Your task to perform on an android device: check google app version Image 0: 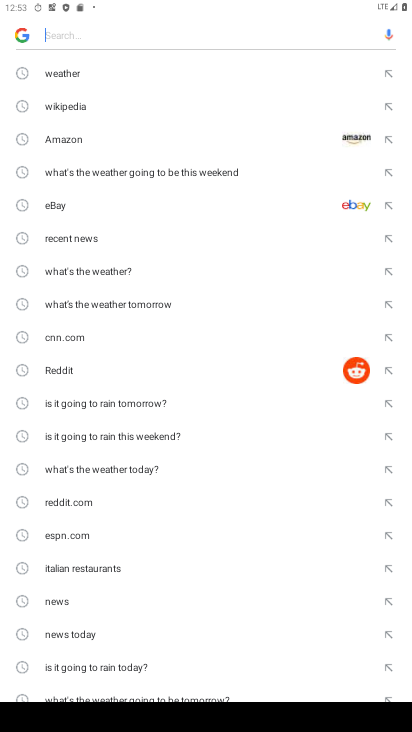
Step 0: press home button
Your task to perform on an android device: check google app version Image 1: 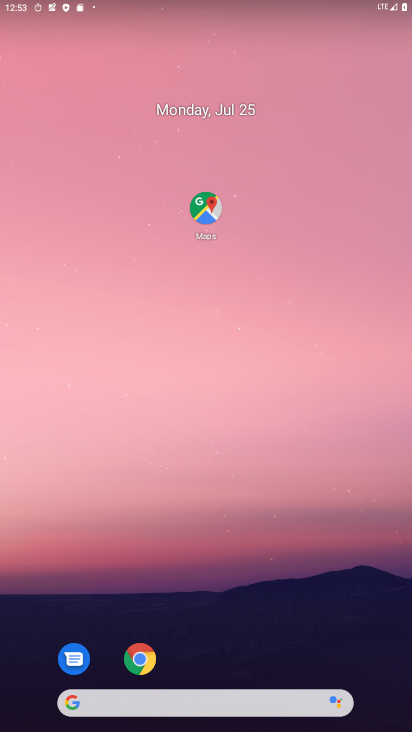
Step 1: drag from (52, 650) to (328, 9)
Your task to perform on an android device: check google app version Image 2: 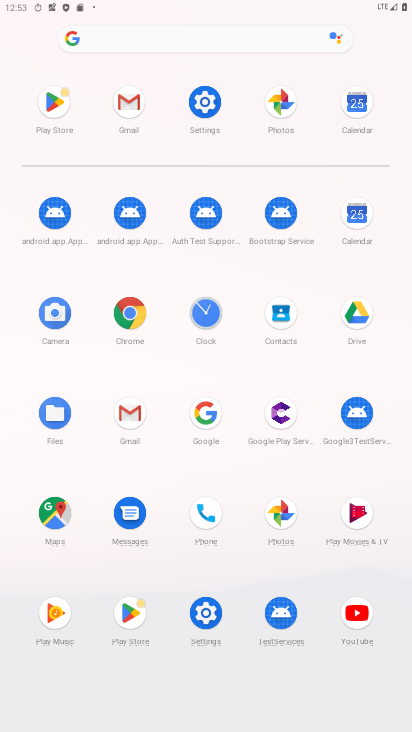
Step 2: click (204, 617)
Your task to perform on an android device: check google app version Image 3: 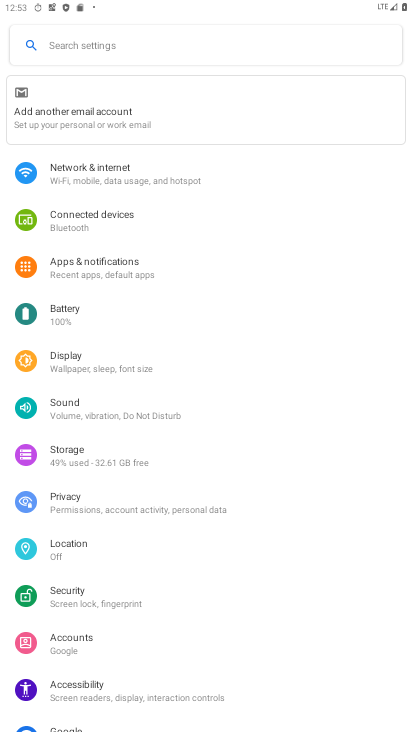
Step 3: drag from (250, 680) to (296, 5)
Your task to perform on an android device: check google app version Image 4: 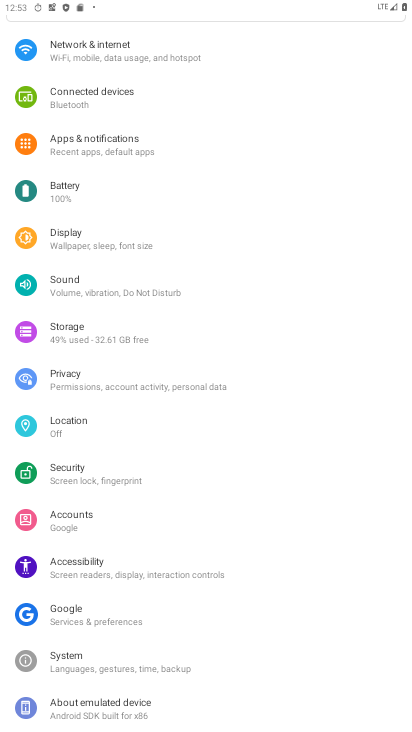
Step 4: click (116, 701)
Your task to perform on an android device: check google app version Image 5: 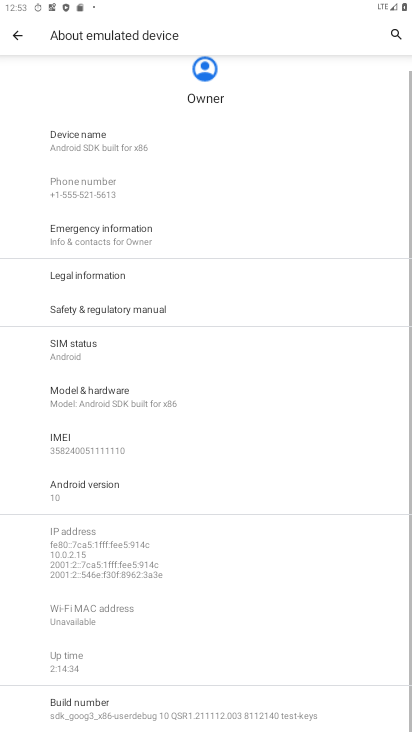
Step 5: drag from (188, 632) to (251, 360)
Your task to perform on an android device: check google app version Image 6: 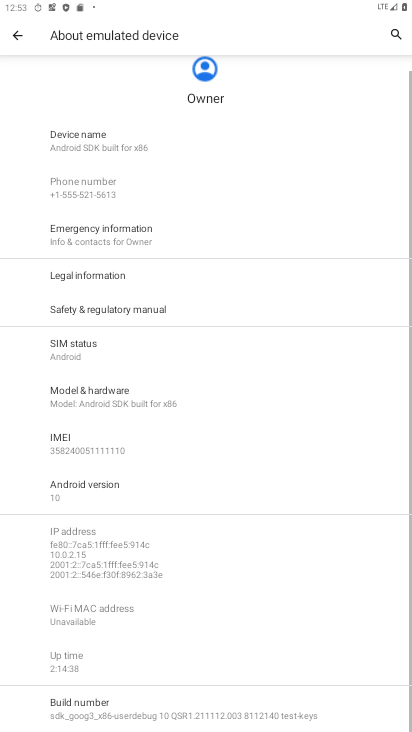
Step 6: drag from (196, 288) to (199, 565)
Your task to perform on an android device: check google app version Image 7: 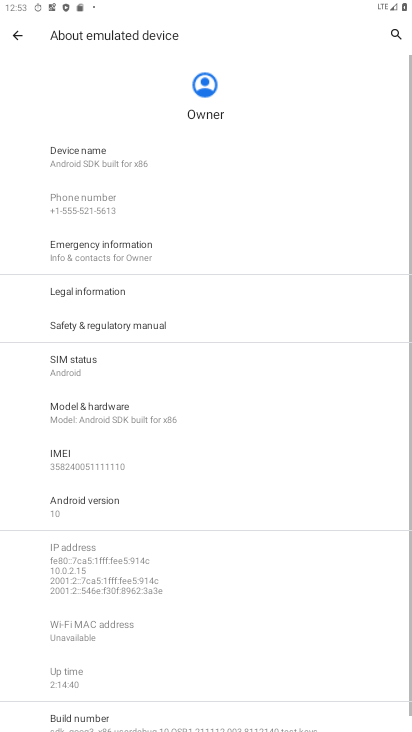
Step 7: click (110, 296)
Your task to perform on an android device: check google app version Image 8: 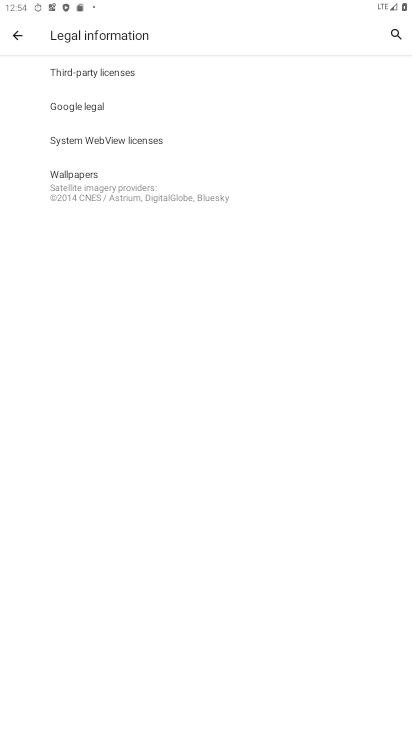
Step 8: click (103, 99)
Your task to perform on an android device: check google app version Image 9: 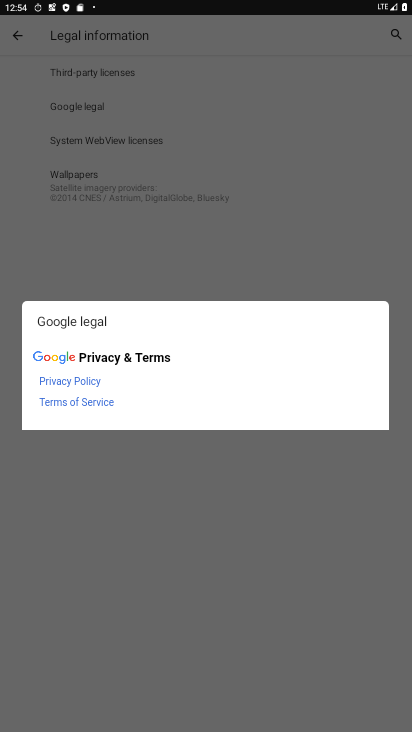
Step 9: click (11, 38)
Your task to perform on an android device: check google app version Image 10: 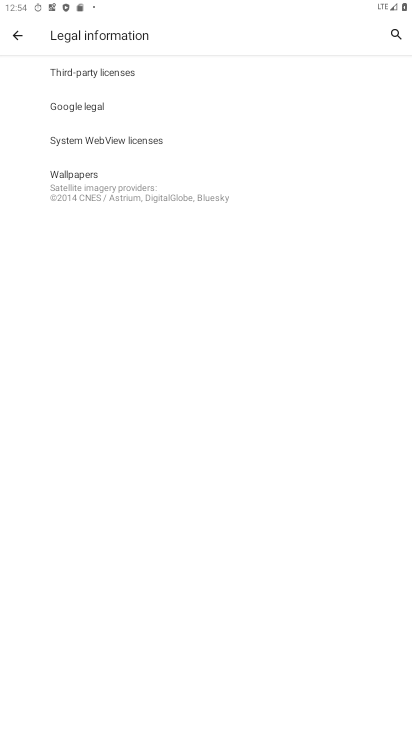
Step 10: click (14, 40)
Your task to perform on an android device: check google app version Image 11: 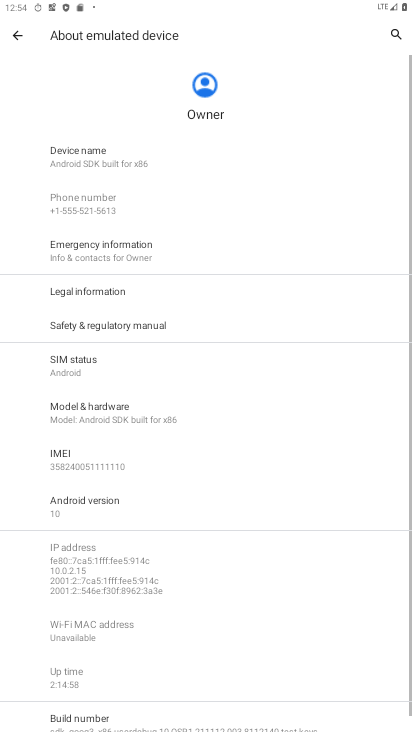
Step 11: task complete